Your task to perform on an android device: turn on showing notifications on the lock screen Image 0: 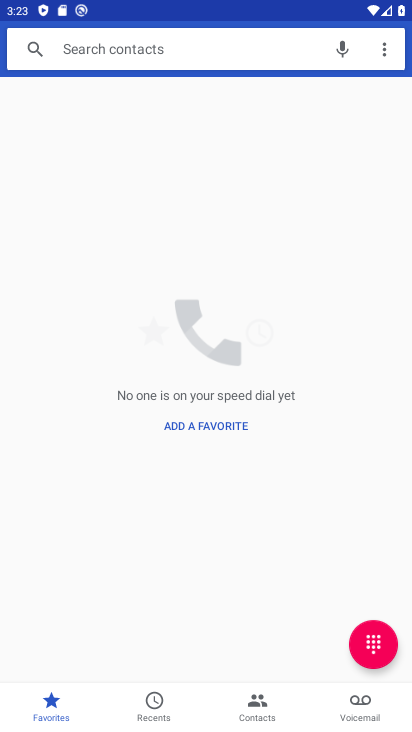
Step 0: drag from (343, 3) to (347, 620)
Your task to perform on an android device: turn on showing notifications on the lock screen Image 1: 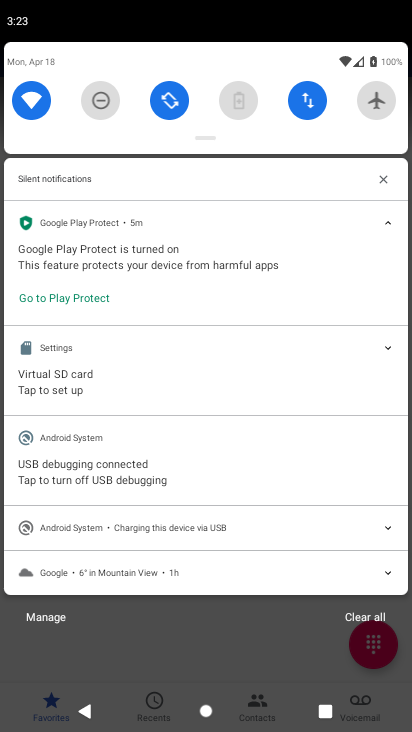
Step 1: task complete